Your task to perform on an android device: What's the weather today? Image 0: 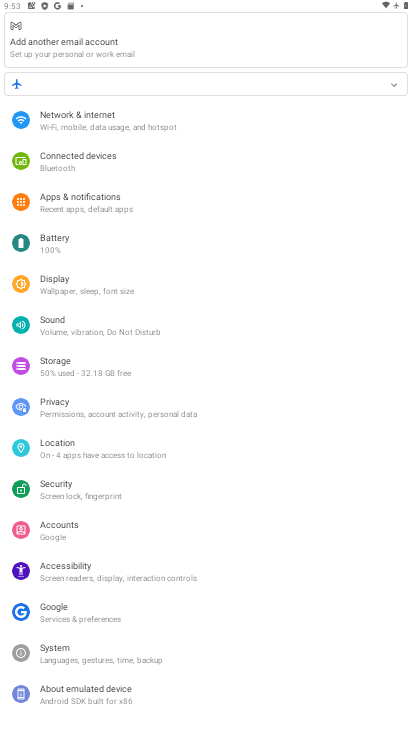
Step 0: press home button
Your task to perform on an android device: What's the weather today? Image 1: 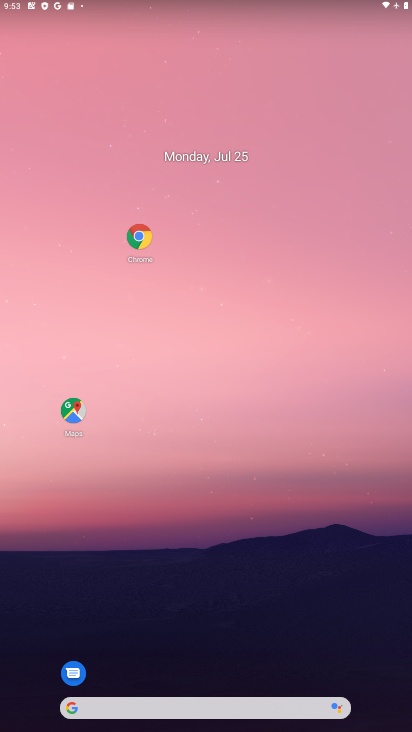
Step 1: click (226, 702)
Your task to perform on an android device: What's the weather today? Image 2: 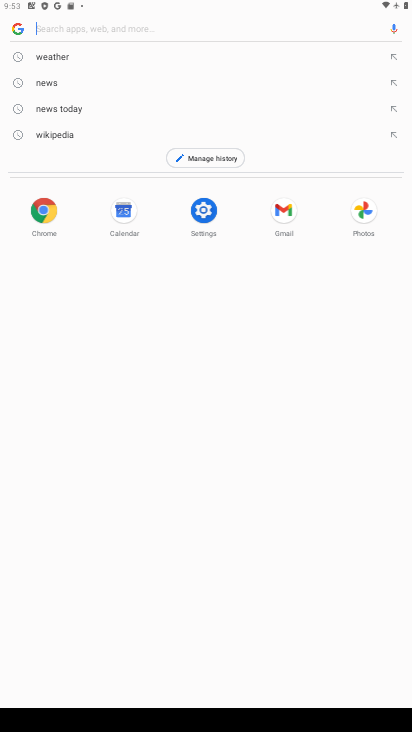
Step 2: click (172, 64)
Your task to perform on an android device: What's the weather today? Image 3: 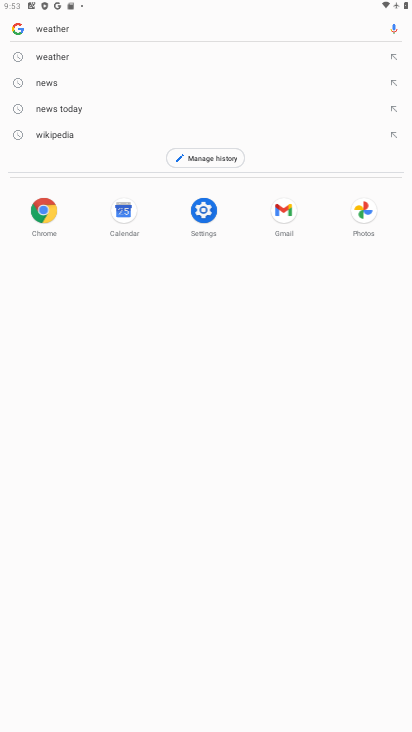
Step 3: task complete